Your task to perform on an android device: View the shopping cart on ebay. Search for logitech g903 on ebay, select the first entry, and add it to the cart. Image 0: 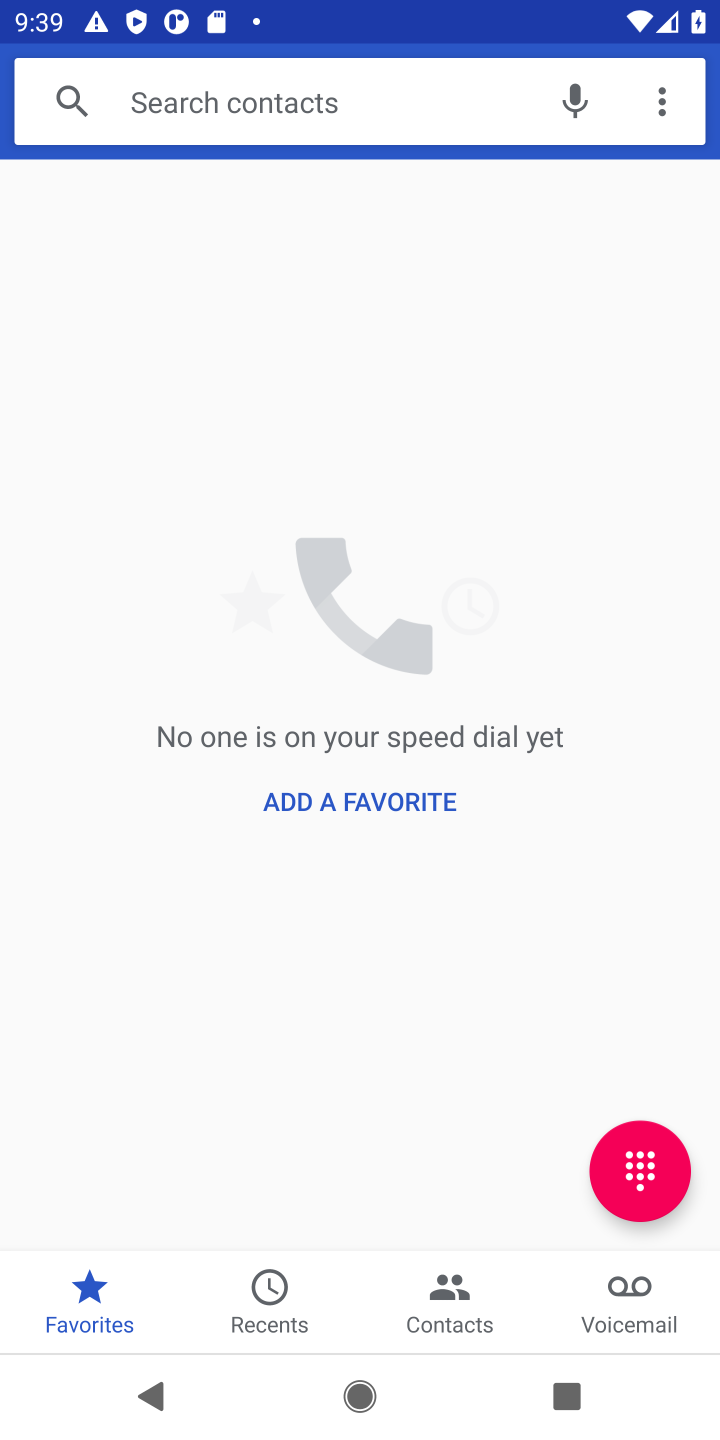
Step 0: press home button
Your task to perform on an android device: View the shopping cart on ebay. Search for logitech g903 on ebay, select the first entry, and add it to the cart. Image 1: 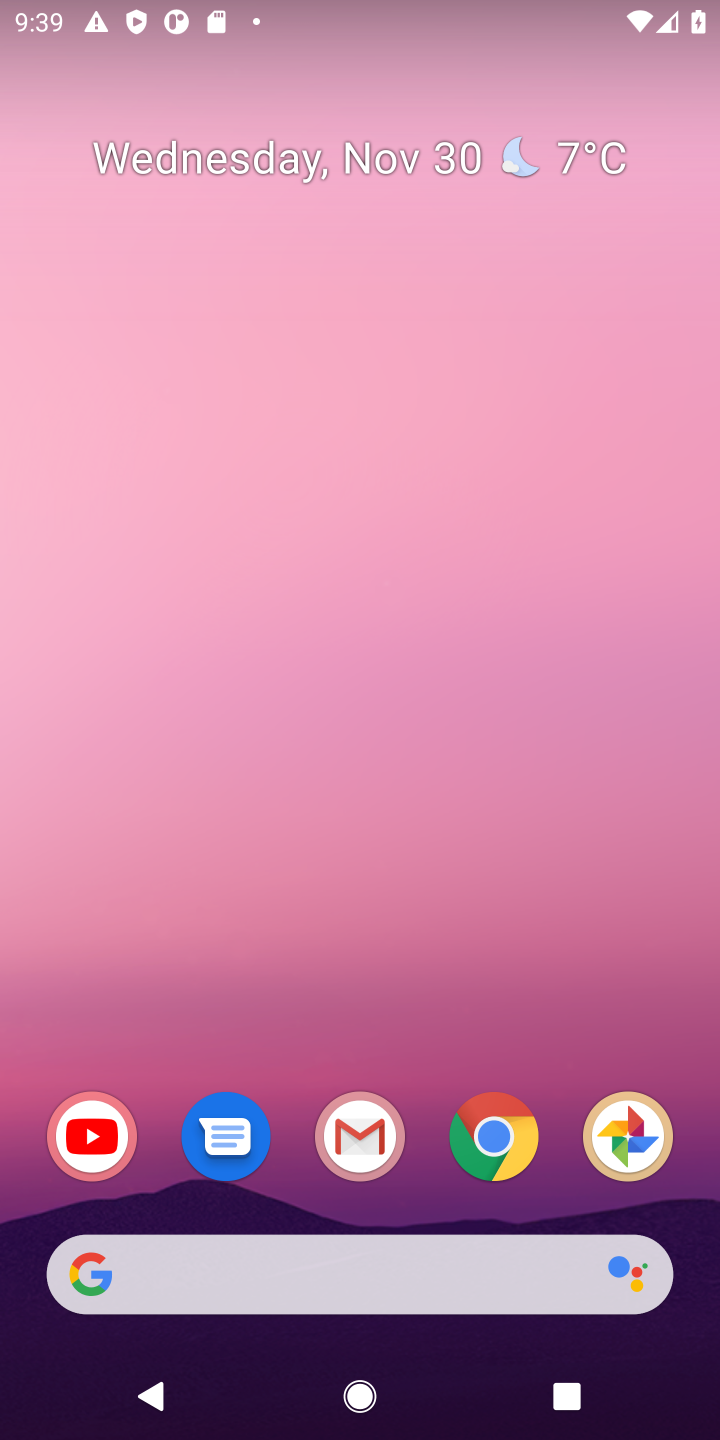
Step 1: click (470, 1151)
Your task to perform on an android device: View the shopping cart on ebay. Search for logitech g903 on ebay, select the first entry, and add it to the cart. Image 2: 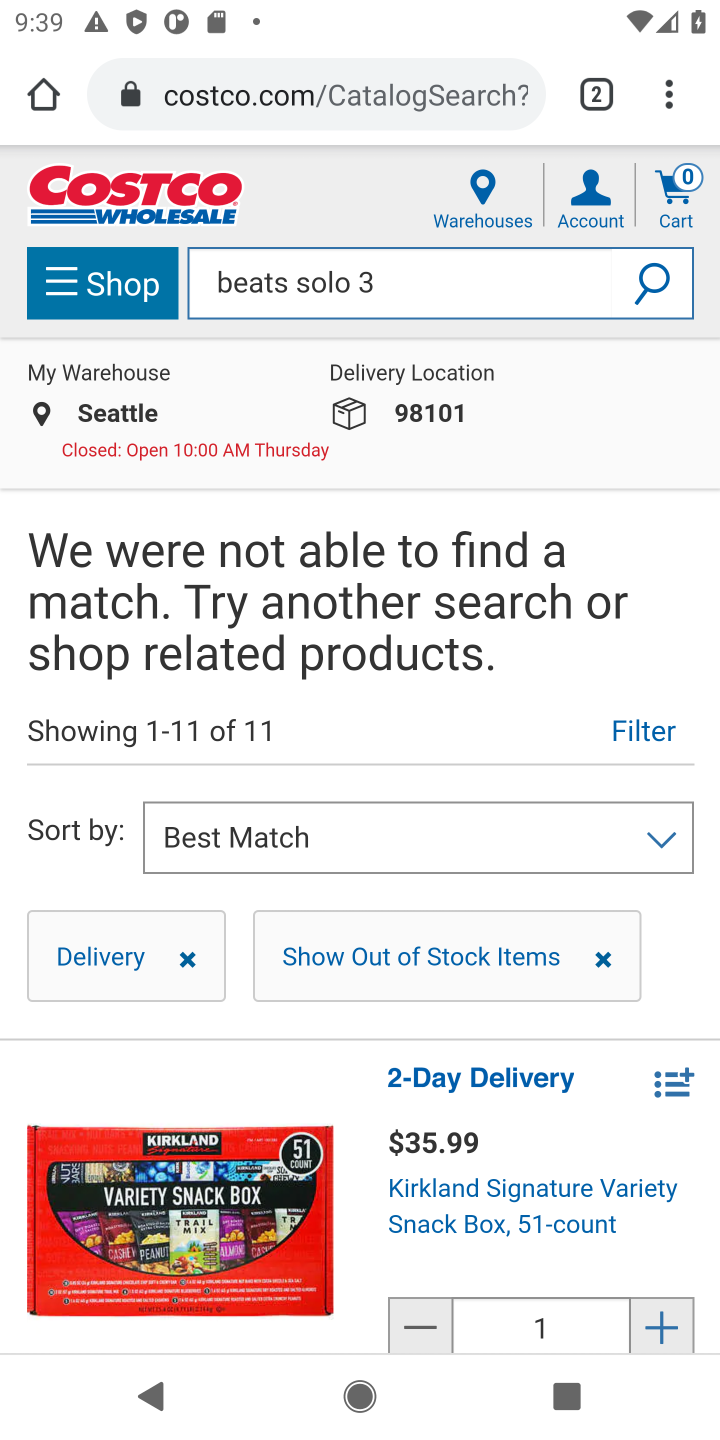
Step 2: click (316, 103)
Your task to perform on an android device: View the shopping cart on ebay. Search for logitech g903 on ebay, select the first entry, and add it to the cart. Image 3: 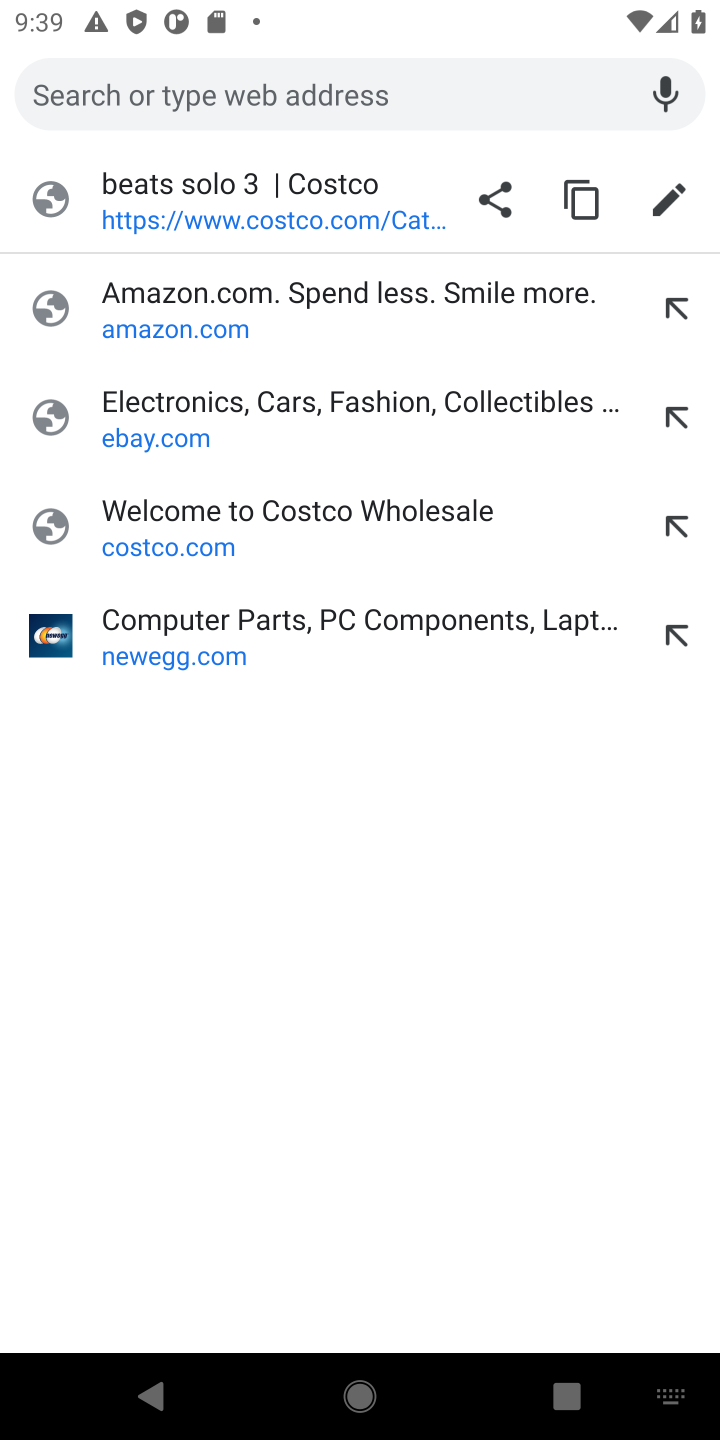
Step 3: click (113, 419)
Your task to perform on an android device: View the shopping cart on ebay. Search for logitech g903 on ebay, select the first entry, and add it to the cart. Image 4: 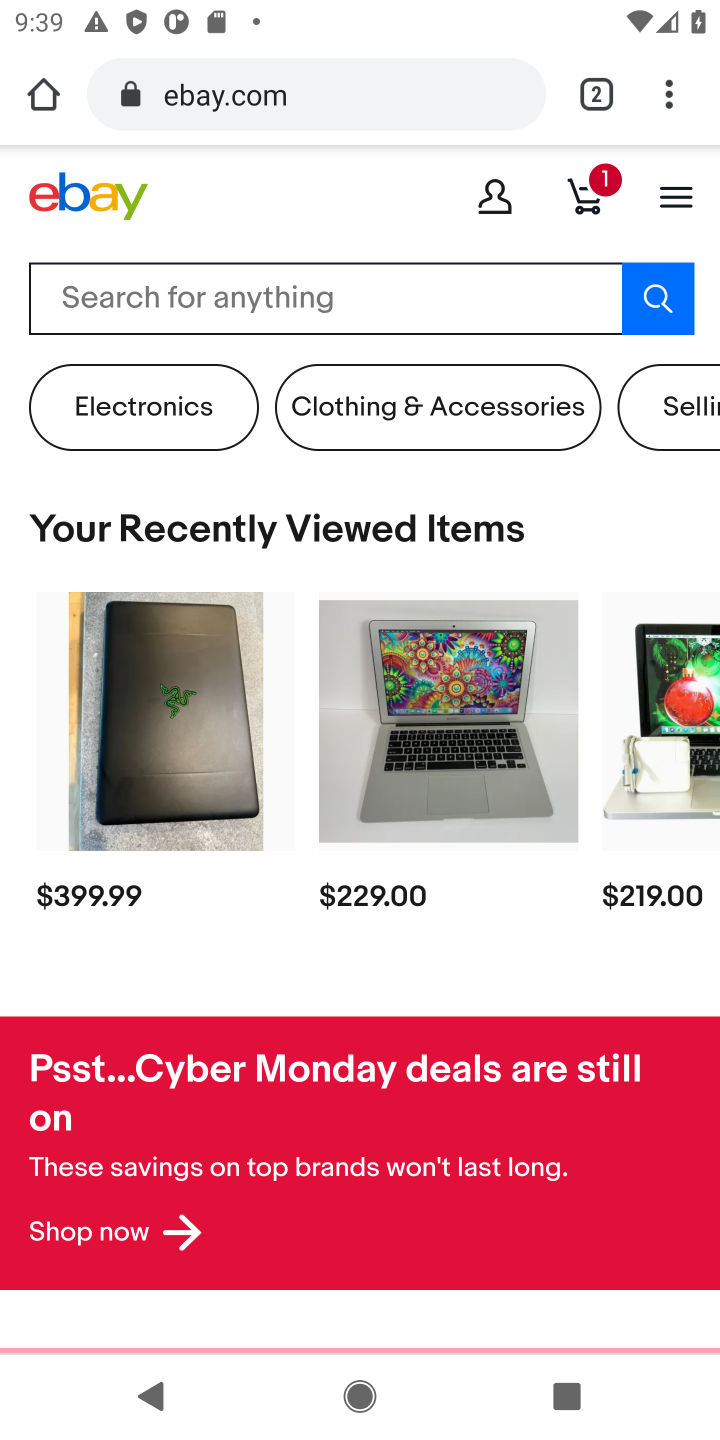
Step 4: click (600, 201)
Your task to perform on an android device: View the shopping cart on ebay. Search for logitech g903 on ebay, select the first entry, and add it to the cart. Image 5: 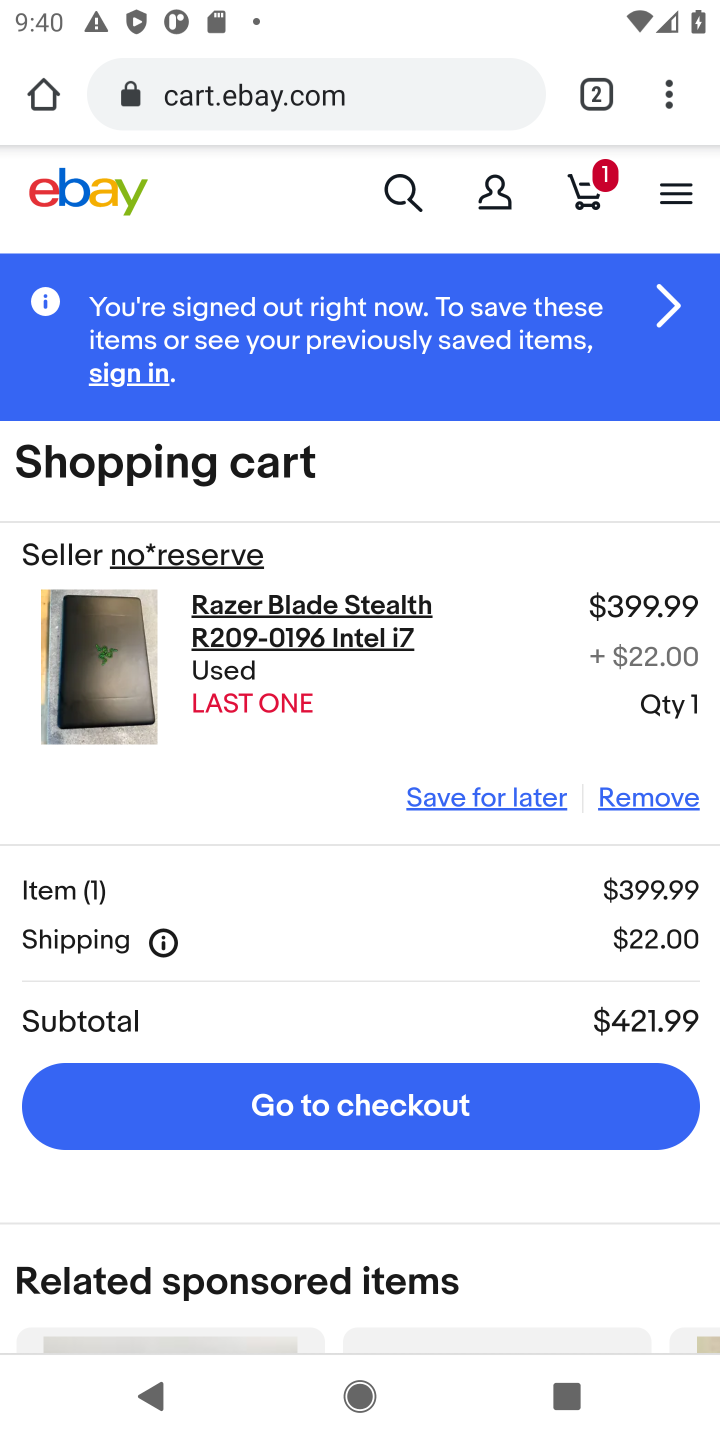
Step 5: click (402, 186)
Your task to perform on an android device: View the shopping cart on ebay. Search for logitech g903 on ebay, select the first entry, and add it to the cart. Image 6: 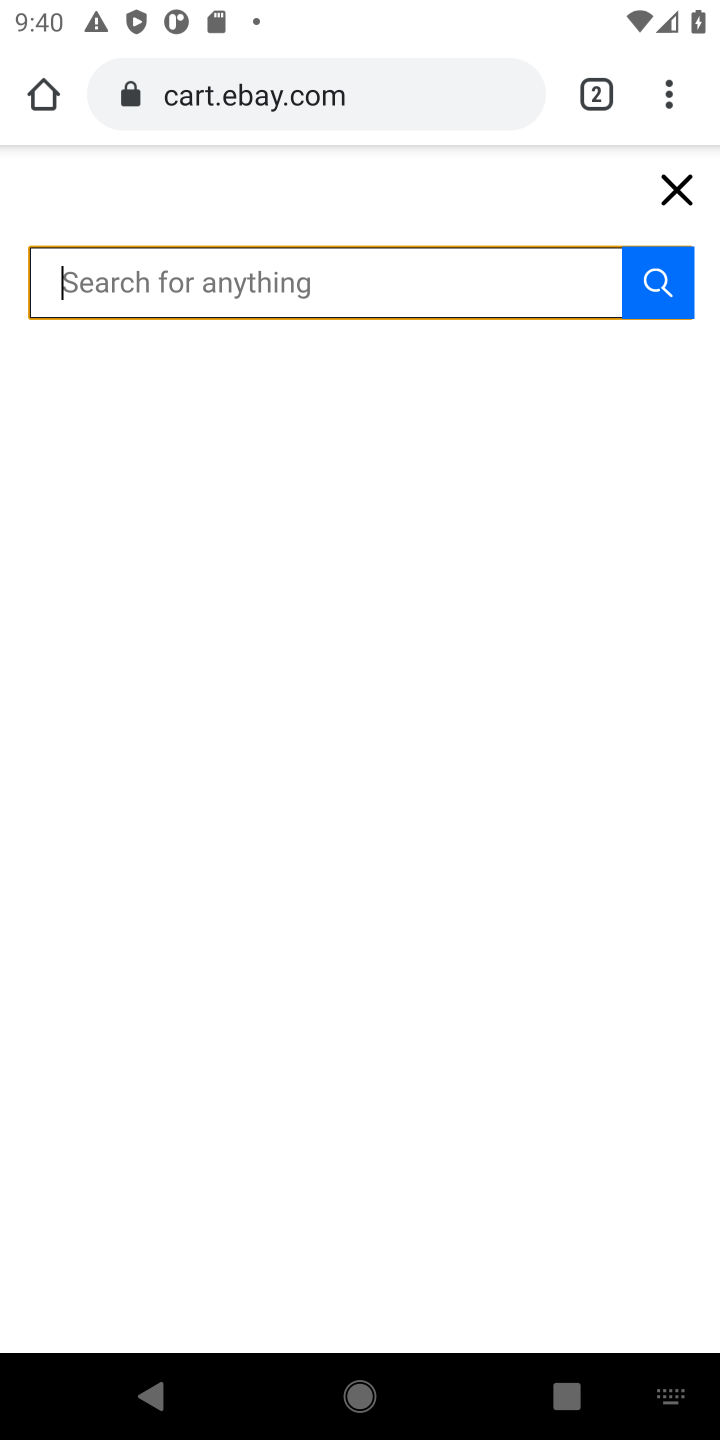
Step 6: type "logitech g903"
Your task to perform on an android device: View the shopping cart on ebay. Search for logitech g903 on ebay, select the first entry, and add it to the cart. Image 7: 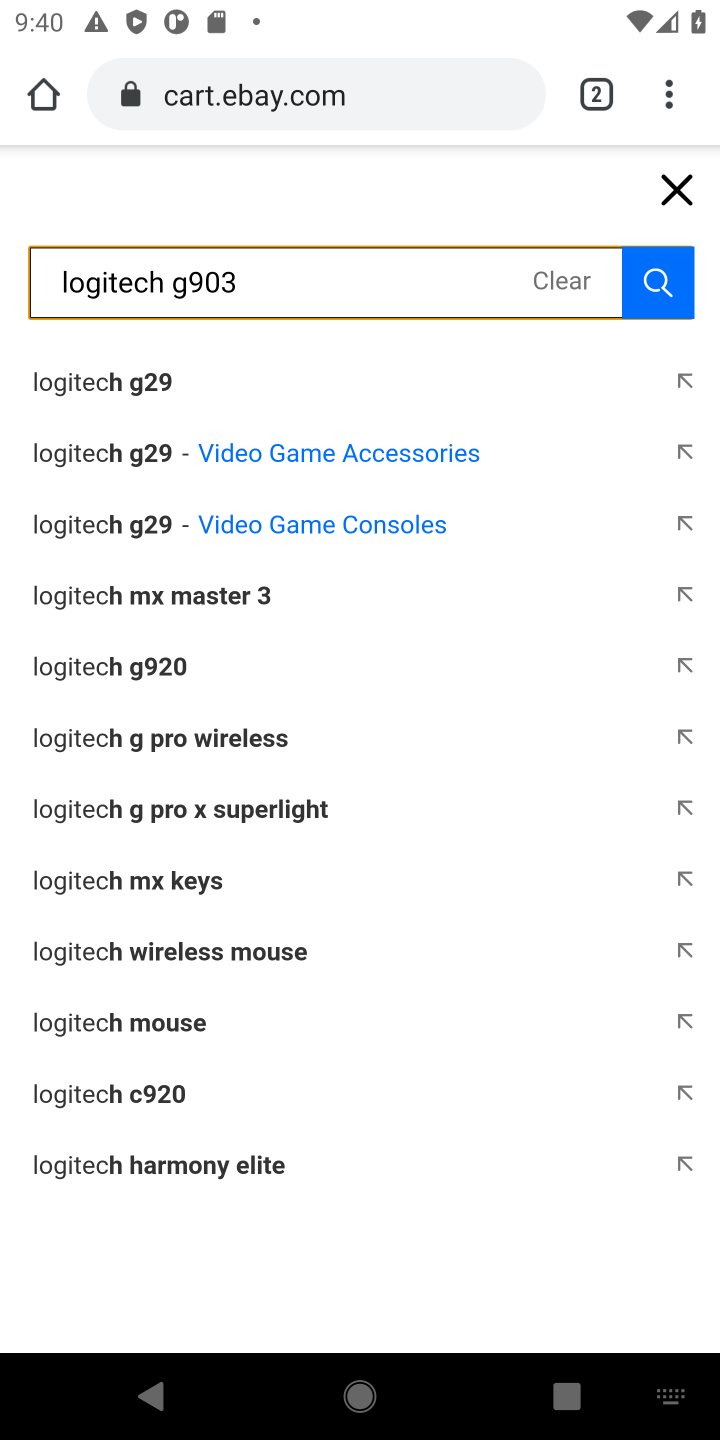
Step 7: click (660, 285)
Your task to perform on an android device: View the shopping cart on ebay. Search for logitech g903 on ebay, select the first entry, and add it to the cart. Image 8: 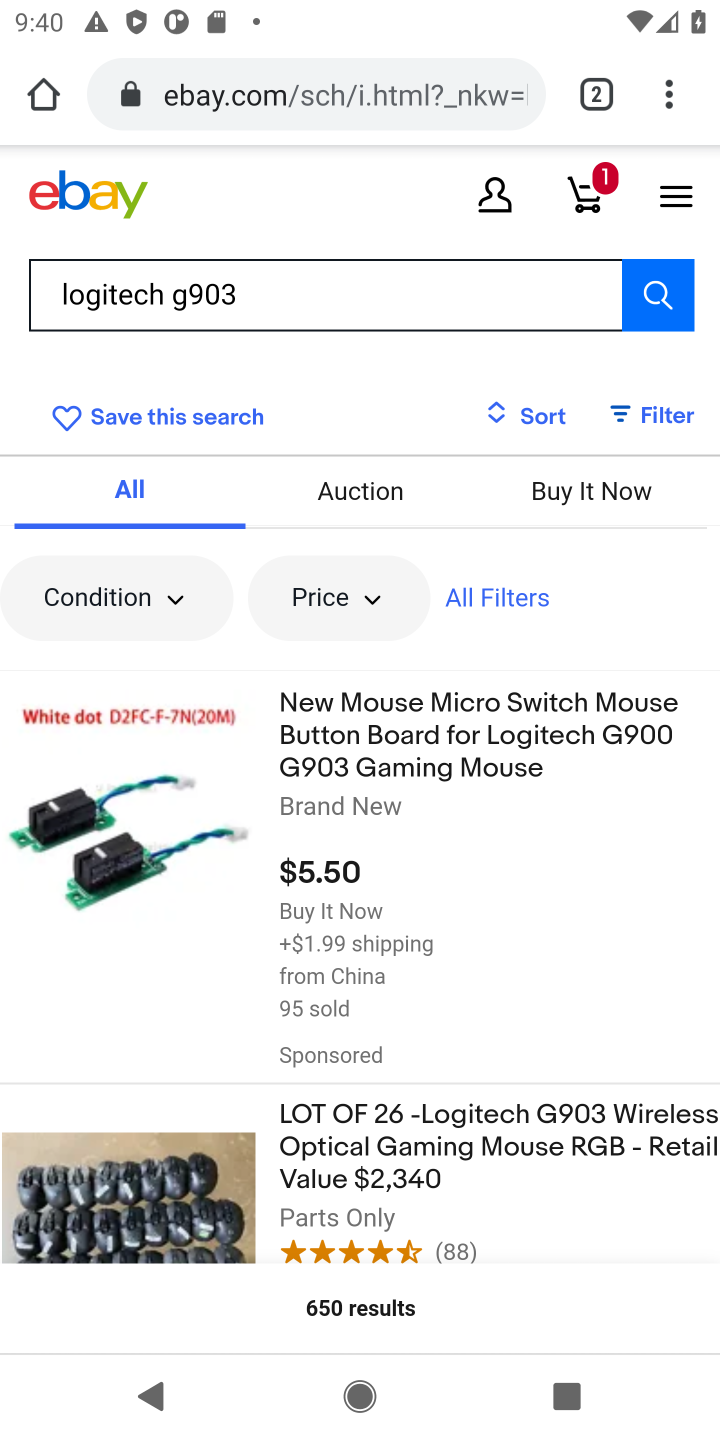
Step 8: click (350, 783)
Your task to perform on an android device: View the shopping cart on ebay. Search for logitech g903 on ebay, select the first entry, and add it to the cart. Image 9: 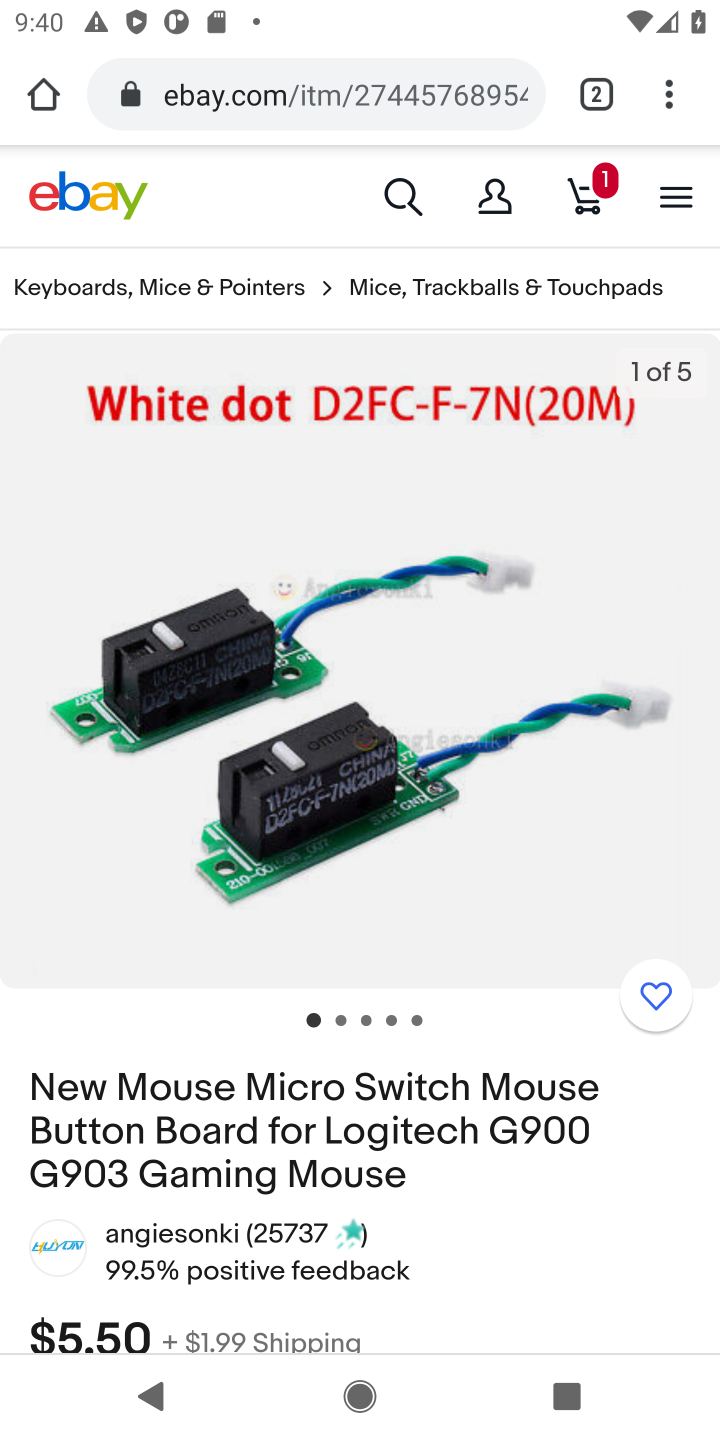
Step 9: drag from (296, 990) to (290, 650)
Your task to perform on an android device: View the shopping cart on ebay. Search for logitech g903 on ebay, select the first entry, and add it to the cart. Image 10: 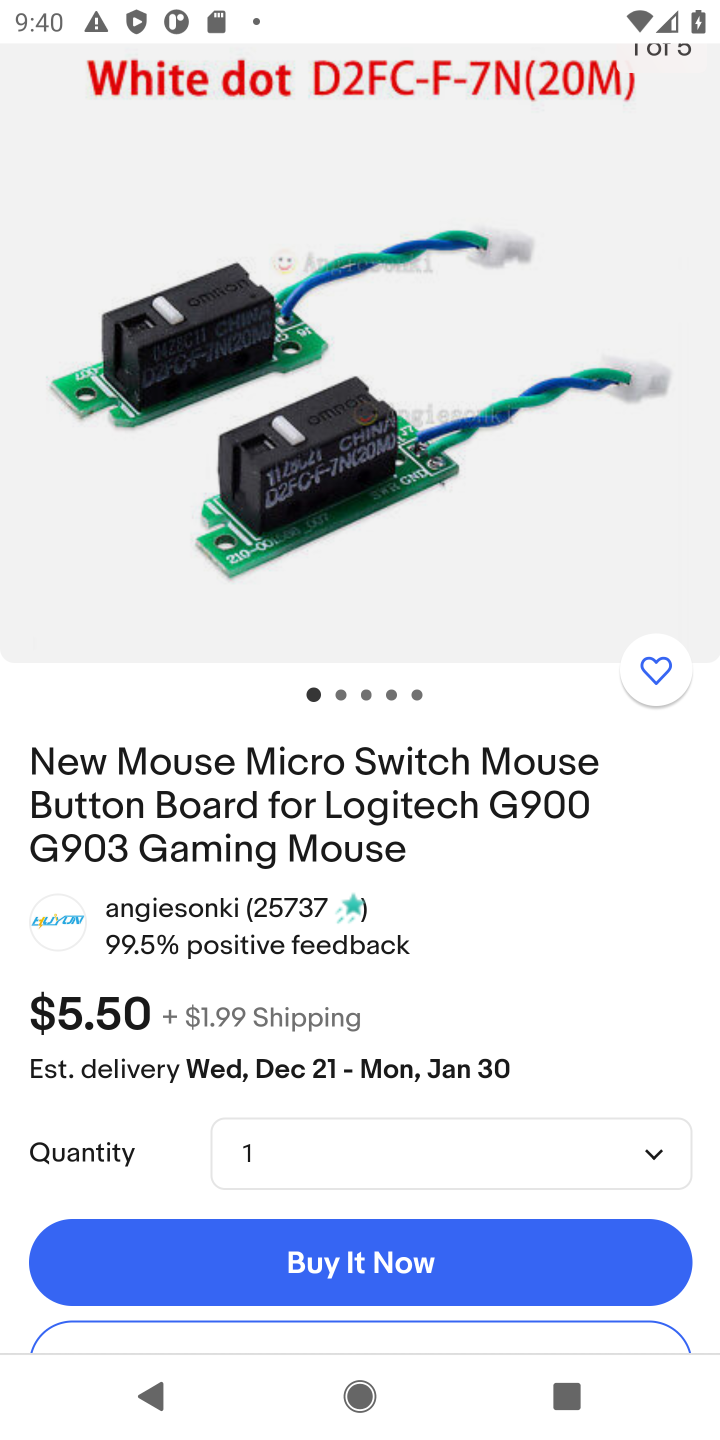
Step 10: drag from (411, 1097) to (396, 757)
Your task to perform on an android device: View the shopping cart on ebay. Search for logitech g903 on ebay, select the first entry, and add it to the cart. Image 11: 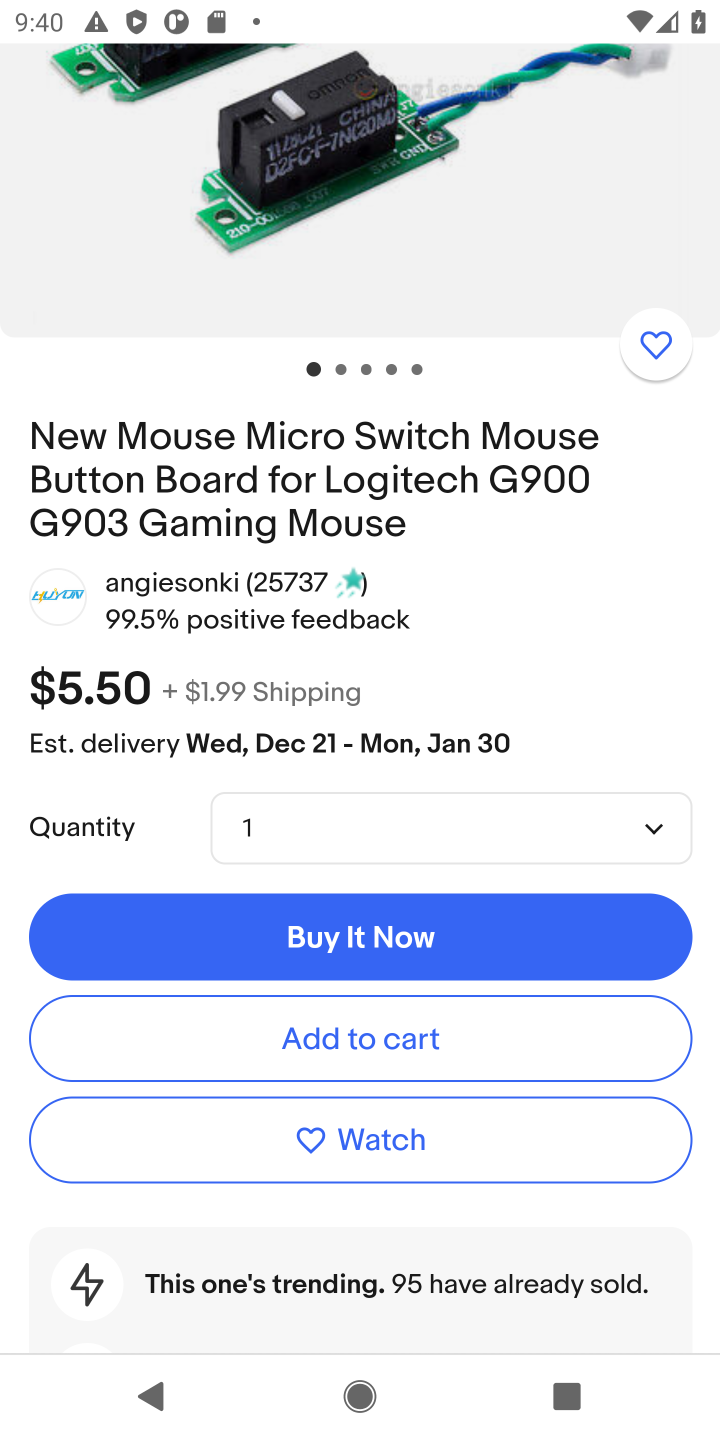
Step 11: click (354, 1032)
Your task to perform on an android device: View the shopping cart on ebay. Search for logitech g903 on ebay, select the first entry, and add it to the cart. Image 12: 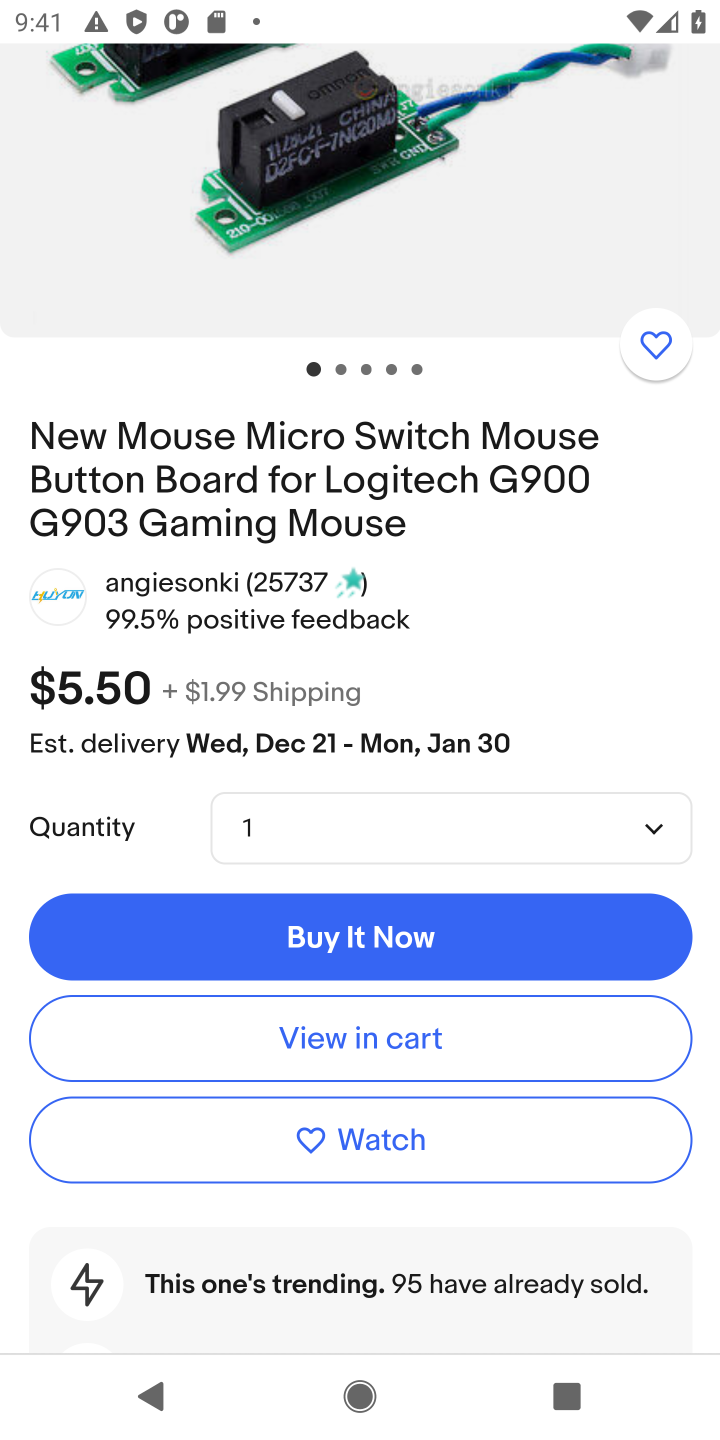
Step 12: task complete